Your task to perform on an android device: open the mobile data screen to see how much data has been used Image 0: 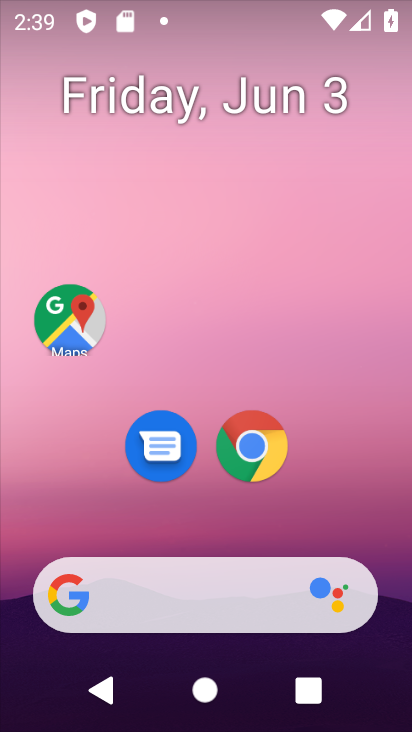
Step 0: drag from (324, 528) to (325, 142)
Your task to perform on an android device: open the mobile data screen to see how much data has been used Image 1: 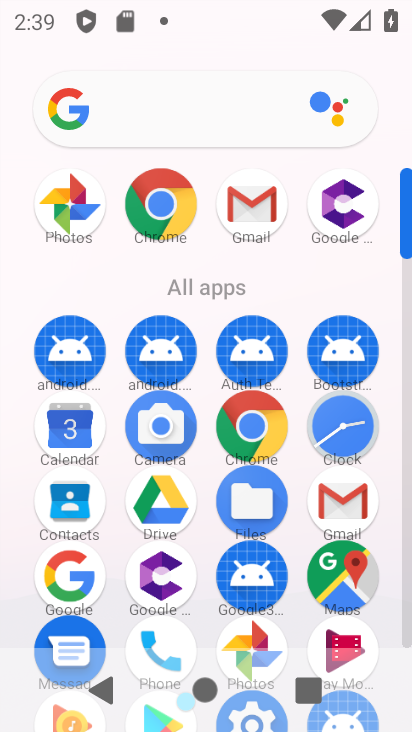
Step 1: click (404, 584)
Your task to perform on an android device: open the mobile data screen to see how much data has been used Image 2: 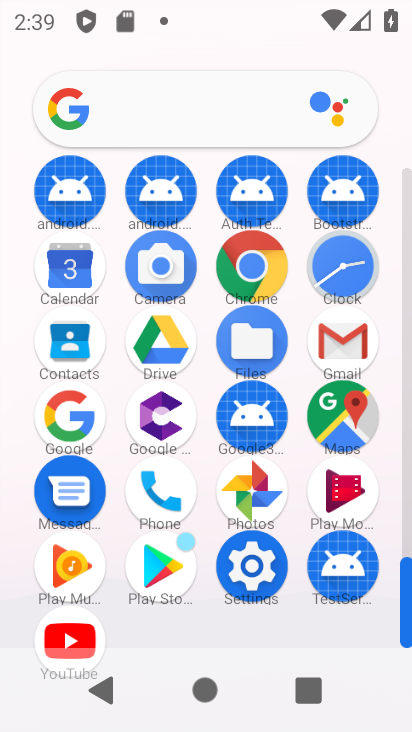
Step 2: click (277, 594)
Your task to perform on an android device: open the mobile data screen to see how much data has been used Image 3: 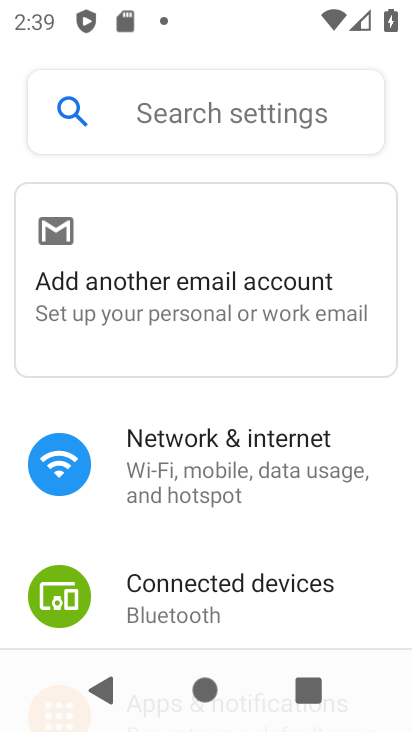
Step 3: click (253, 447)
Your task to perform on an android device: open the mobile data screen to see how much data has been used Image 4: 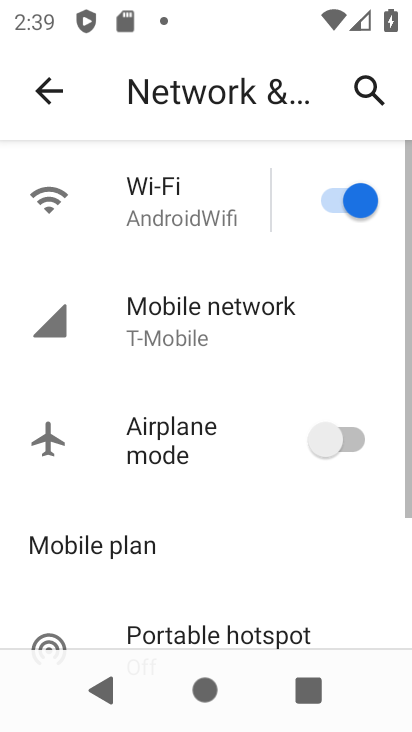
Step 4: click (236, 307)
Your task to perform on an android device: open the mobile data screen to see how much data has been used Image 5: 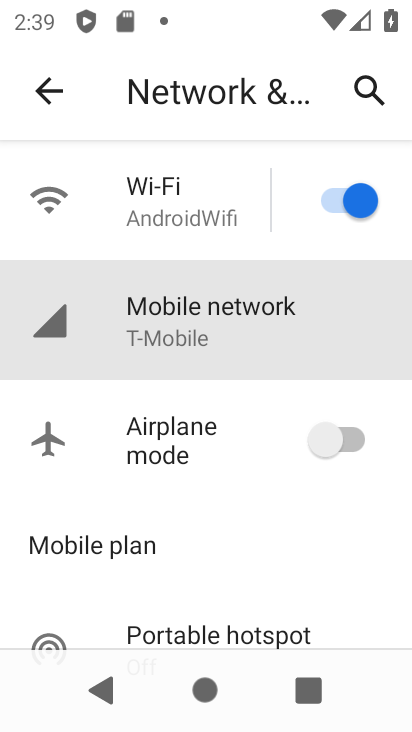
Step 5: task complete